Your task to perform on an android device: toggle data saver in the chrome app Image 0: 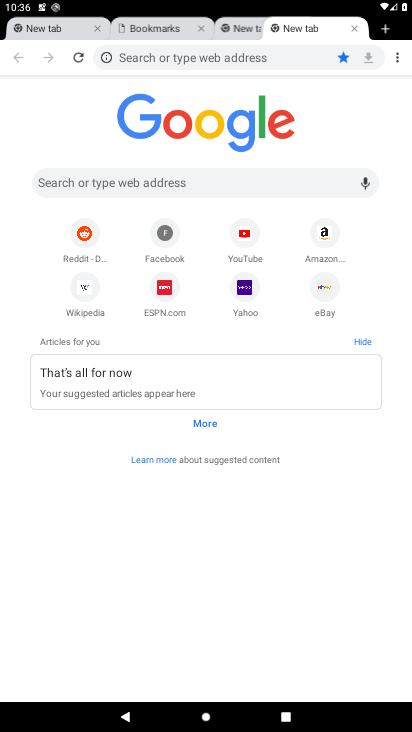
Step 0: click (394, 58)
Your task to perform on an android device: toggle data saver in the chrome app Image 1: 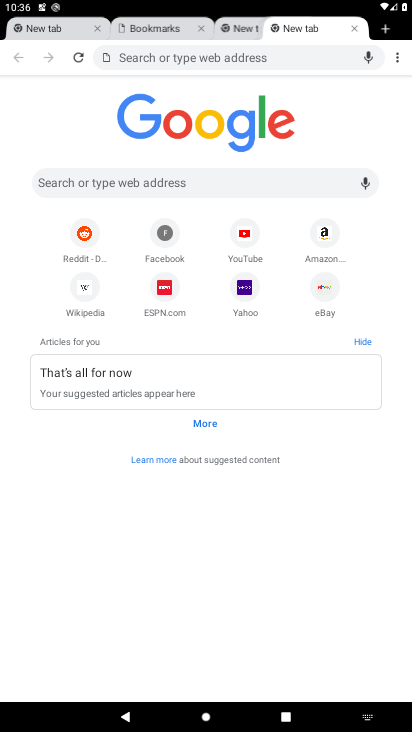
Step 1: click (394, 57)
Your task to perform on an android device: toggle data saver in the chrome app Image 2: 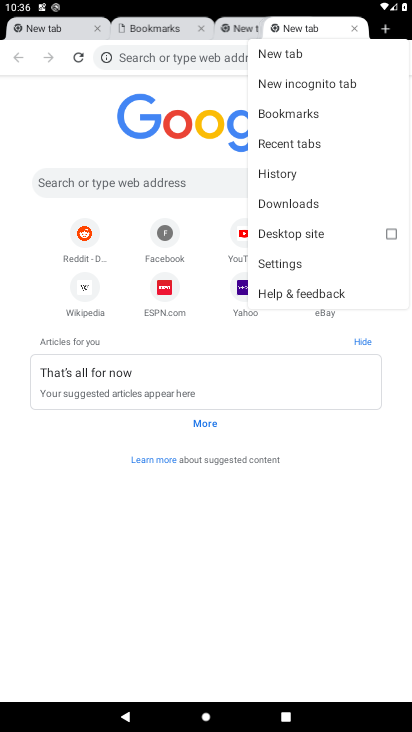
Step 2: click (282, 264)
Your task to perform on an android device: toggle data saver in the chrome app Image 3: 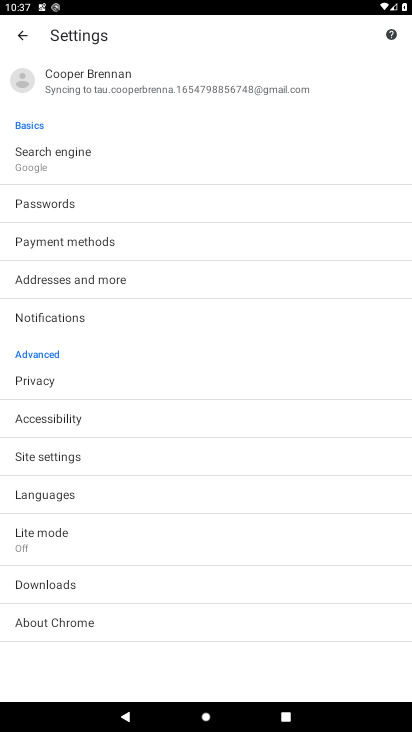
Step 3: click (54, 541)
Your task to perform on an android device: toggle data saver in the chrome app Image 4: 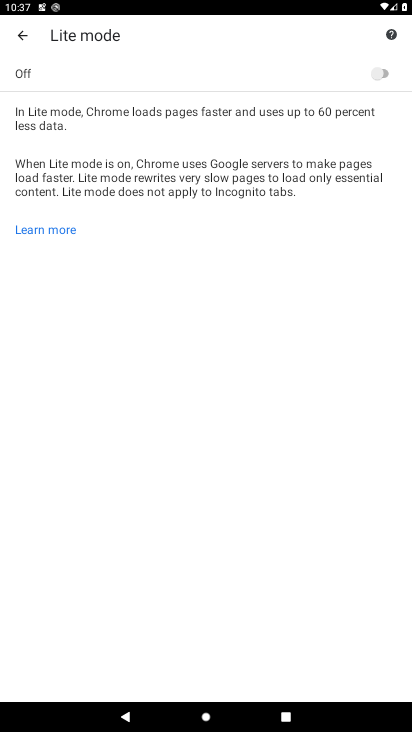
Step 4: click (383, 74)
Your task to perform on an android device: toggle data saver in the chrome app Image 5: 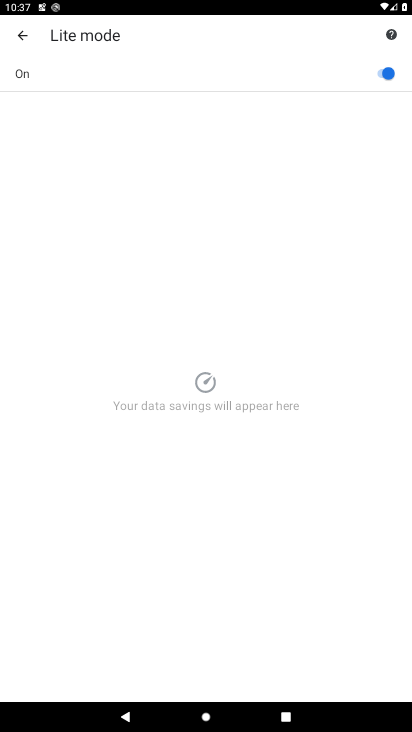
Step 5: task complete